Your task to perform on an android device: Open my contact list Image 0: 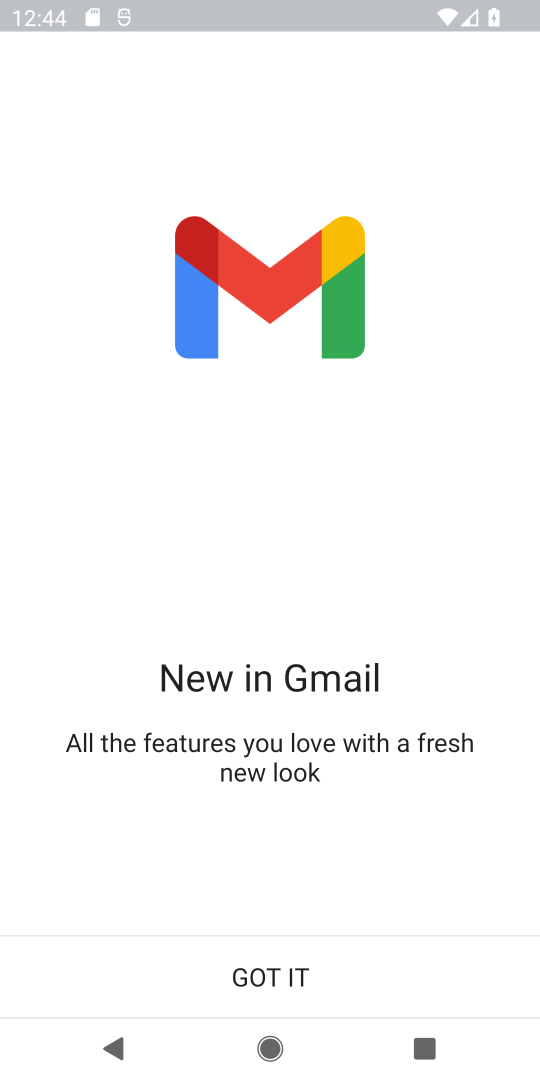
Step 0: press home button
Your task to perform on an android device: Open my contact list Image 1: 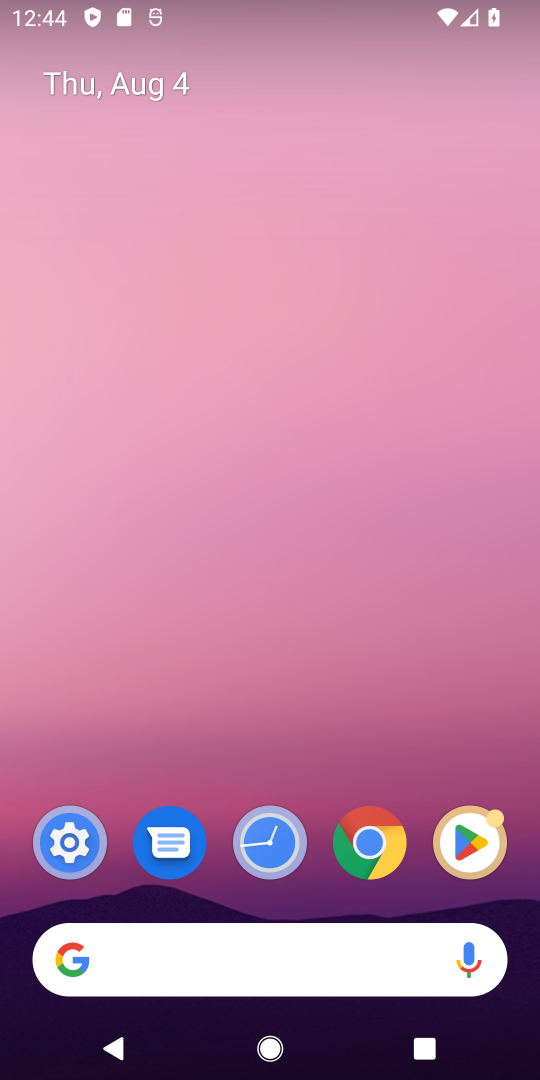
Step 1: drag from (281, 736) to (253, 80)
Your task to perform on an android device: Open my contact list Image 2: 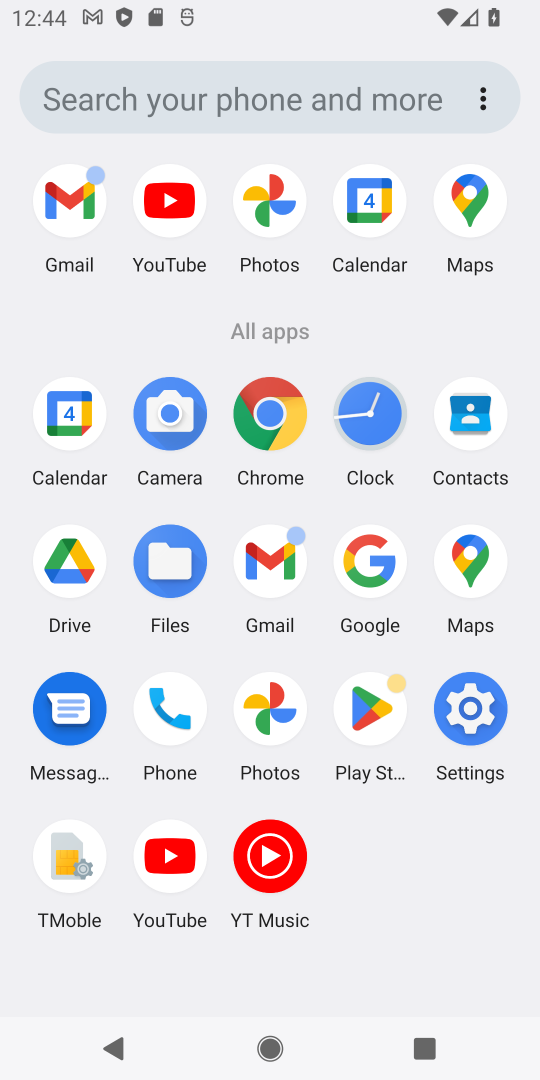
Step 2: click (489, 435)
Your task to perform on an android device: Open my contact list Image 3: 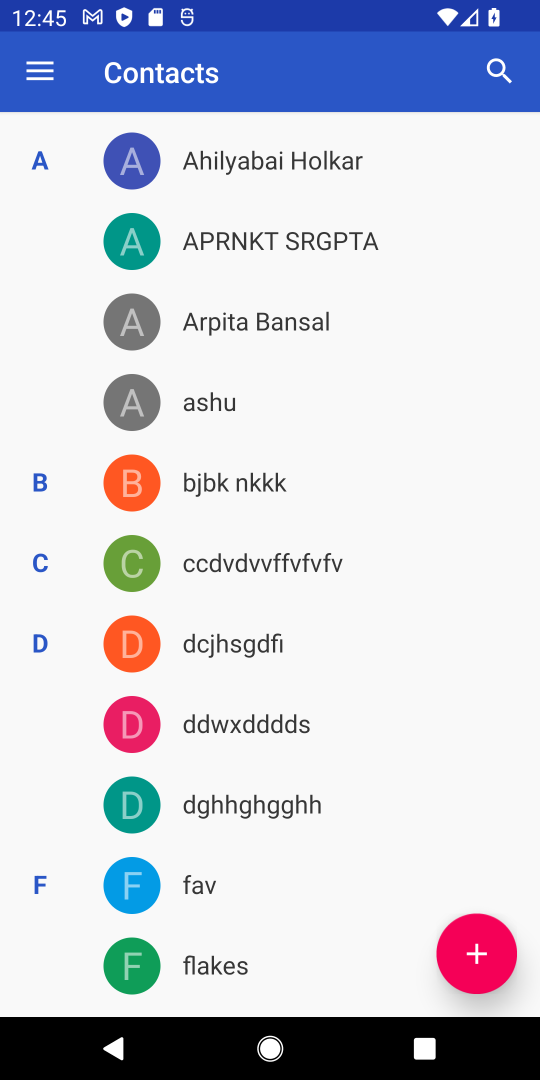
Step 3: task complete